Your task to perform on an android device: delete browsing data in the chrome app Image 0: 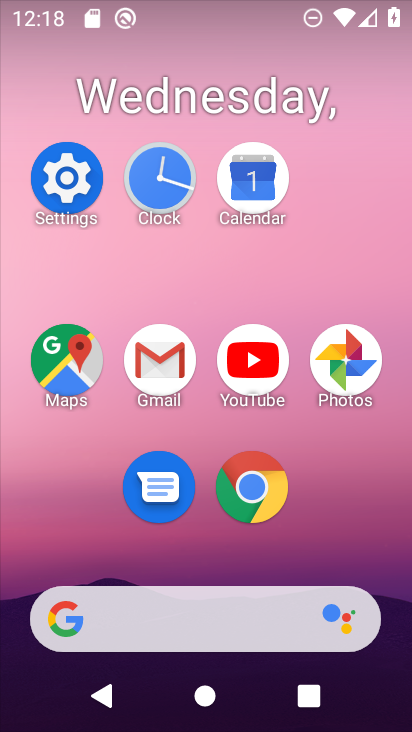
Step 0: click (262, 486)
Your task to perform on an android device: delete browsing data in the chrome app Image 1: 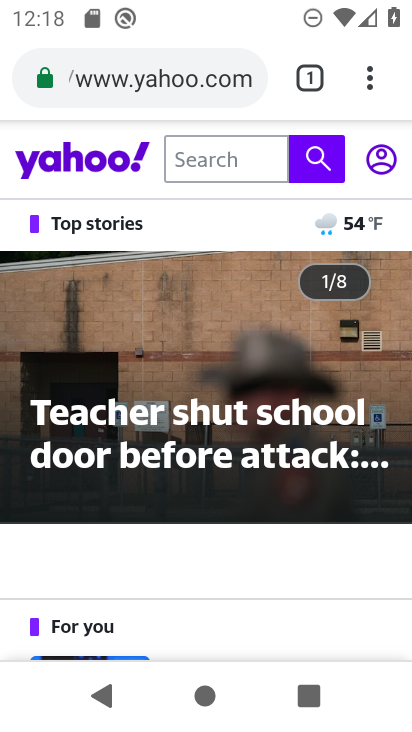
Step 1: click (387, 85)
Your task to perform on an android device: delete browsing data in the chrome app Image 2: 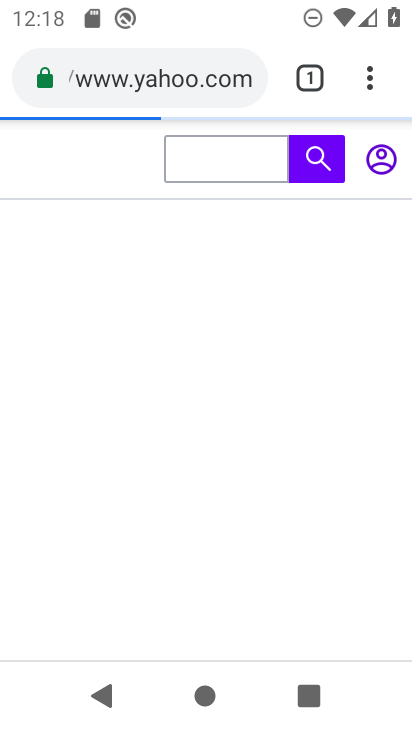
Step 2: click (364, 88)
Your task to perform on an android device: delete browsing data in the chrome app Image 3: 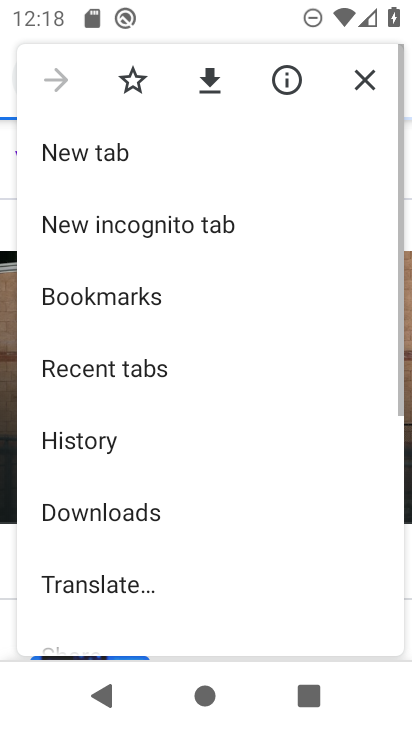
Step 3: drag from (199, 529) to (186, 135)
Your task to perform on an android device: delete browsing data in the chrome app Image 4: 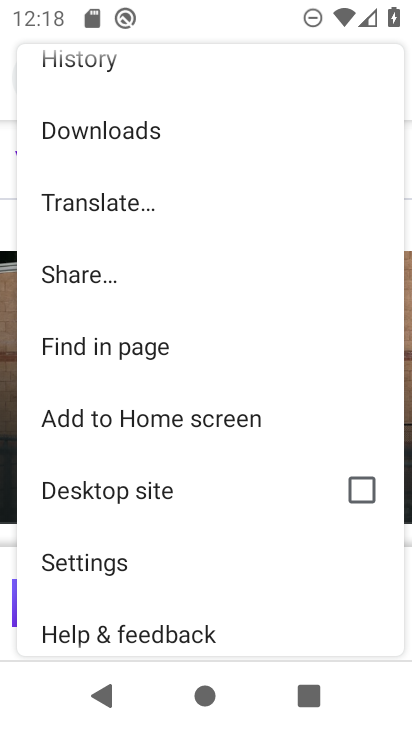
Step 4: click (165, 574)
Your task to perform on an android device: delete browsing data in the chrome app Image 5: 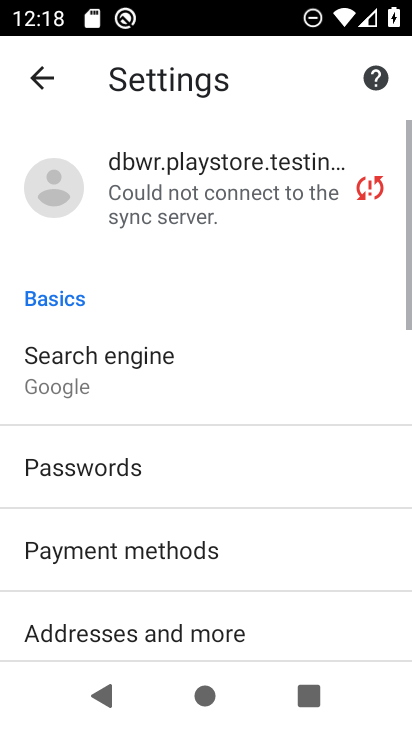
Step 5: drag from (165, 573) to (132, 75)
Your task to perform on an android device: delete browsing data in the chrome app Image 6: 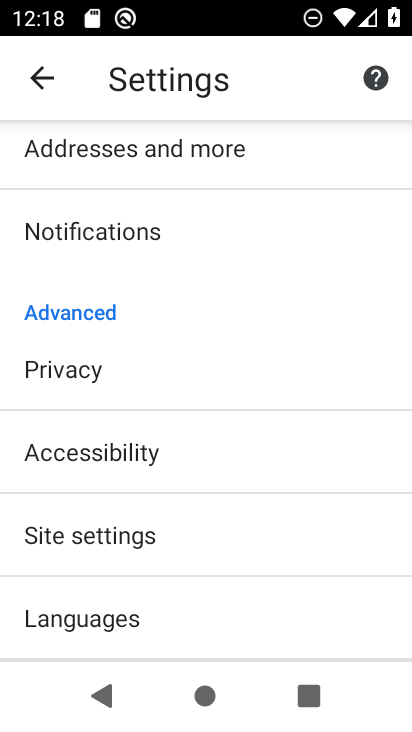
Step 6: drag from (177, 547) to (181, 182)
Your task to perform on an android device: delete browsing data in the chrome app Image 7: 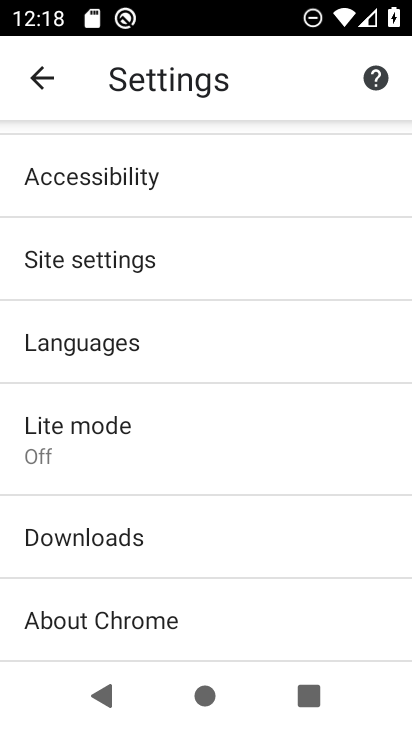
Step 7: drag from (259, 530) to (323, 263)
Your task to perform on an android device: delete browsing data in the chrome app Image 8: 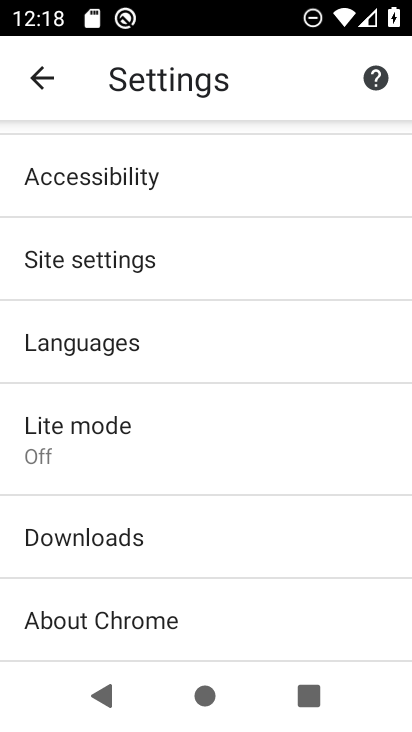
Step 8: drag from (242, 568) to (224, 303)
Your task to perform on an android device: delete browsing data in the chrome app Image 9: 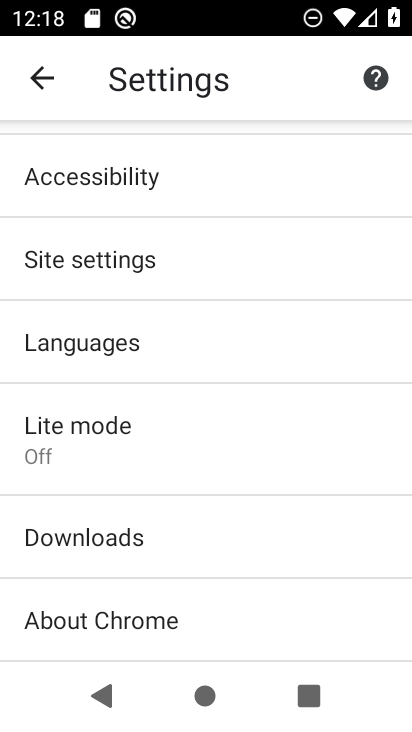
Step 9: drag from (222, 564) to (230, 232)
Your task to perform on an android device: delete browsing data in the chrome app Image 10: 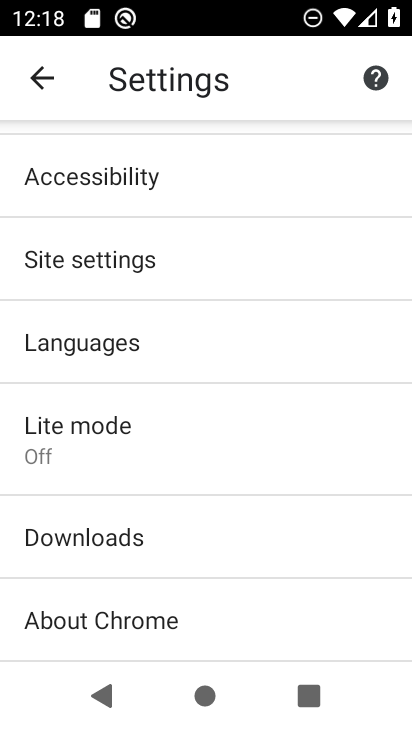
Step 10: drag from (243, 234) to (260, 564)
Your task to perform on an android device: delete browsing data in the chrome app Image 11: 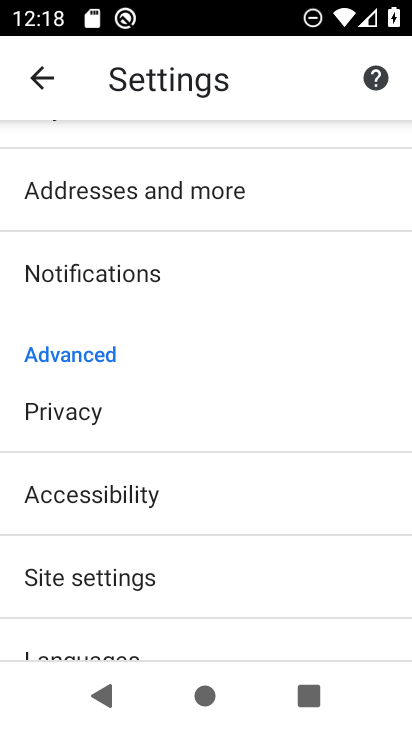
Step 11: click (208, 427)
Your task to perform on an android device: delete browsing data in the chrome app Image 12: 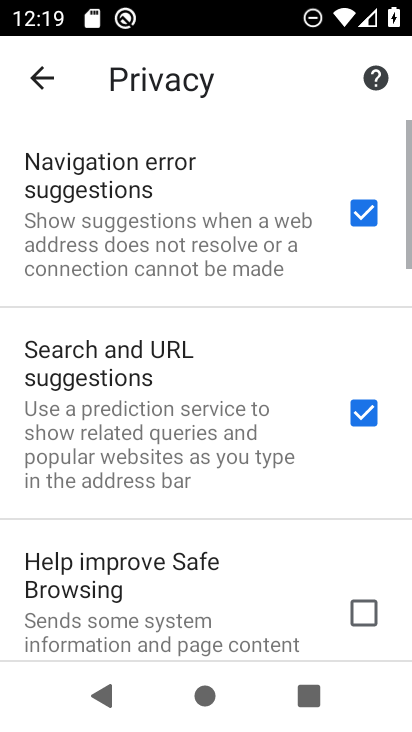
Step 12: drag from (223, 598) to (188, 200)
Your task to perform on an android device: delete browsing data in the chrome app Image 13: 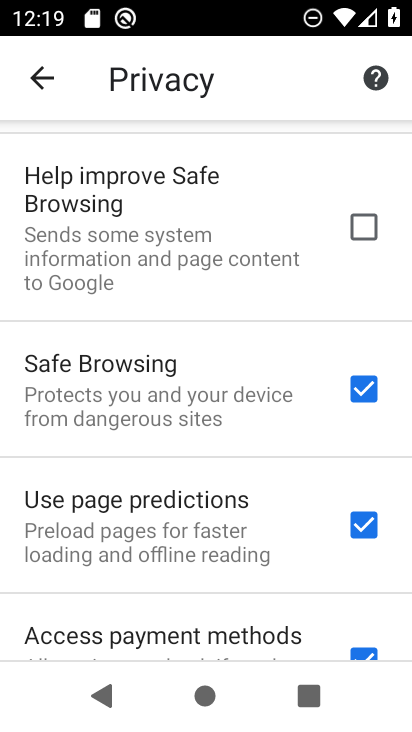
Step 13: drag from (226, 435) to (214, 137)
Your task to perform on an android device: delete browsing data in the chrome app Image 14: 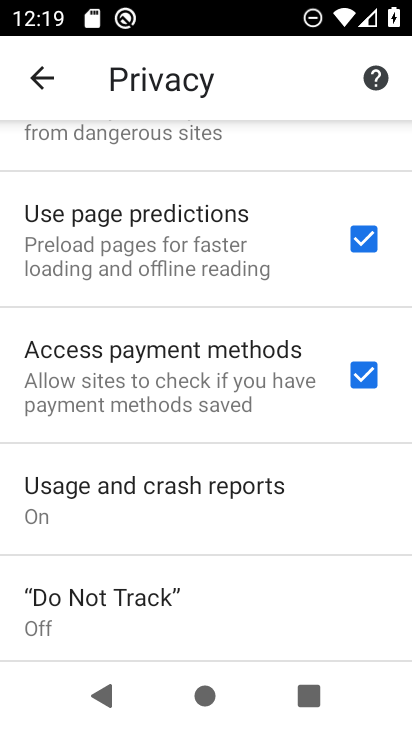
Step 14: drag from (234, 601) to (251, 149)
Your task to perform on an android device: delete browsing data in the chrome app Image 15: 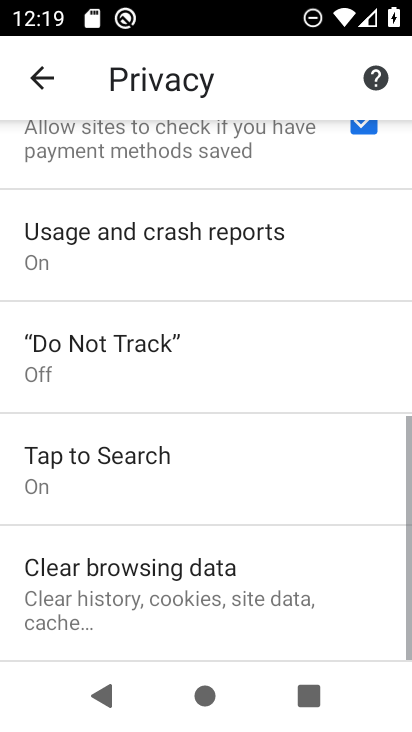
Step 15: click (268, 588)
Your task to perform on an android device: delete browsing data in the chrome app Image 16: 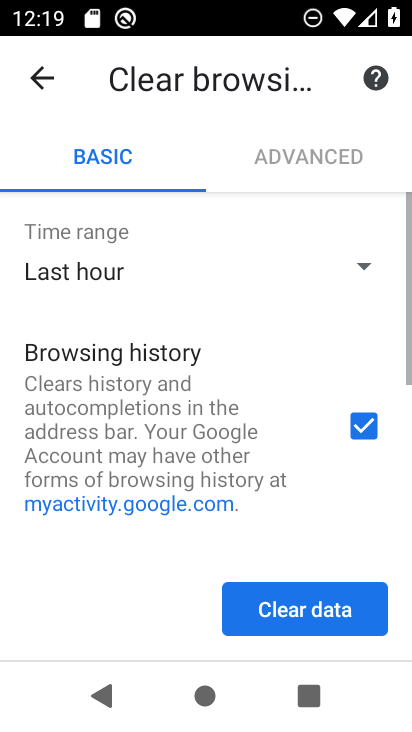
Step 16: drag from (233, 479) to (276, 167)
Your task to perform on an android device: delete browsing data in the chrome app Image 17: 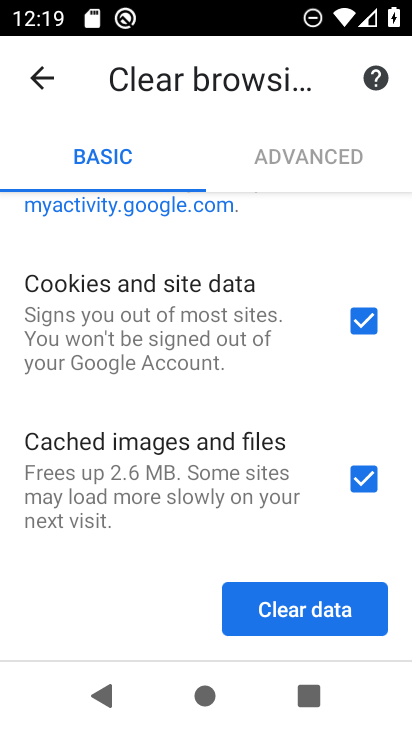
Step 17: click (294, 599)
Your task to perform on an android device: delete browsing data in the chrome app Image 18: 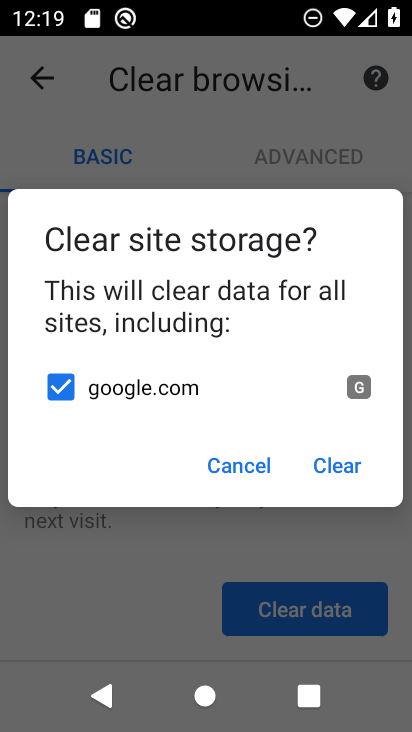
Step 18: click (344, 458)
Your task to perform on an android device: delete browsing data in the chrome app Image 19: 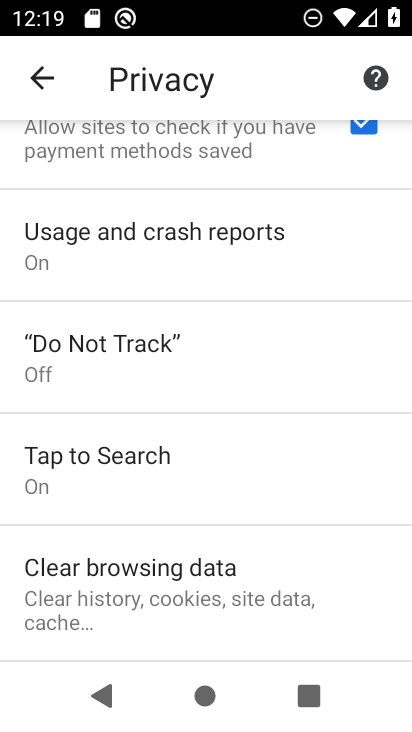
Step 19: task complete